Your task to perform on an android device: Open settings on Google Maps Image 0: 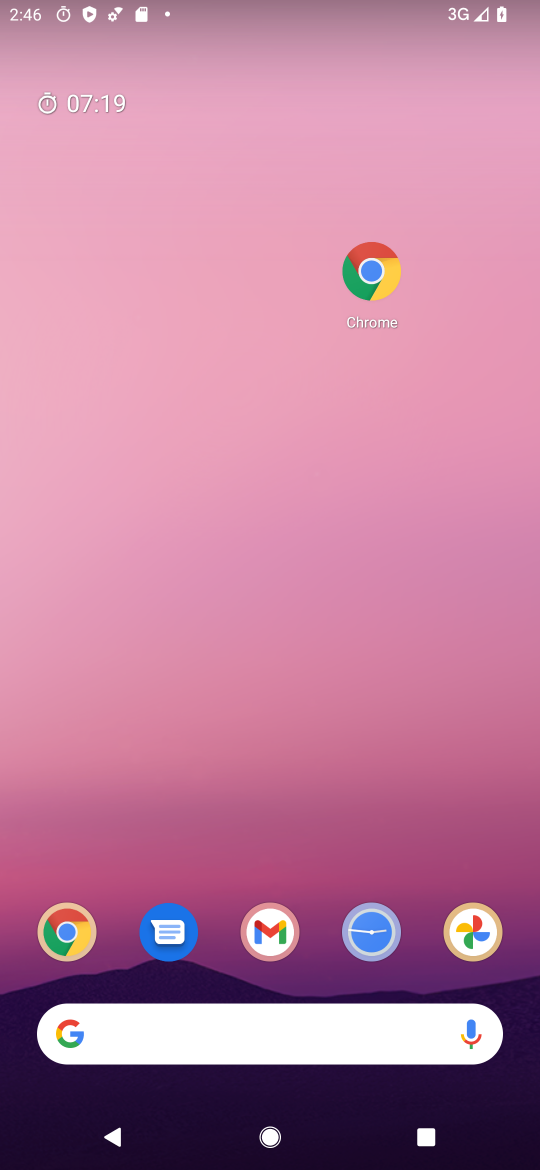
Step 0: drag from (328, 872) to (306, 69)
Your task to perform on an android device: Open settings on Google Maps Image 1: 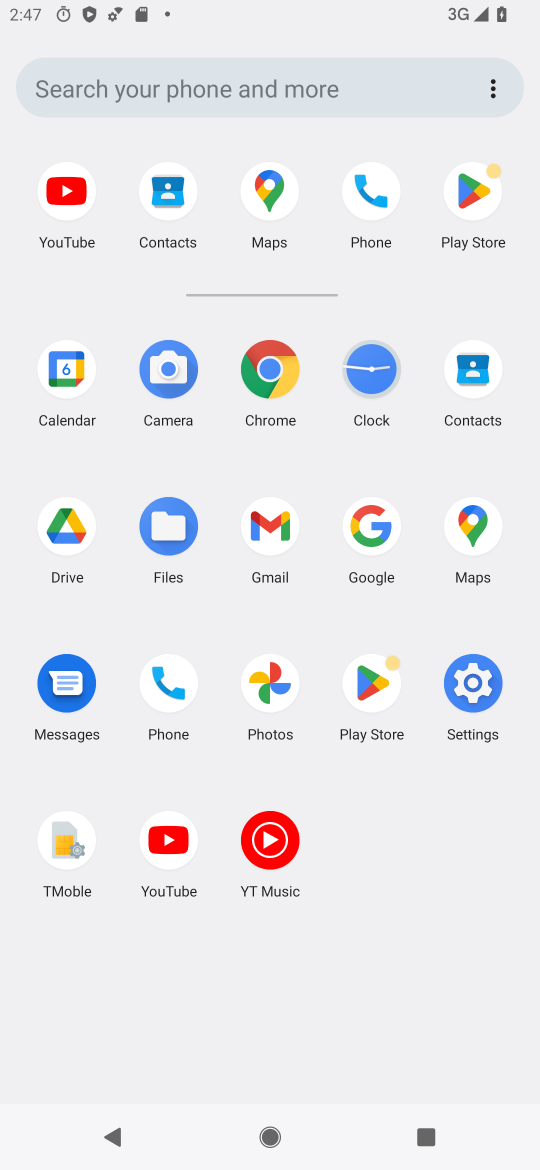
Step 1: click (465, 532)
Your task to perform on an android device: Open settings on Google Maps Image 2: 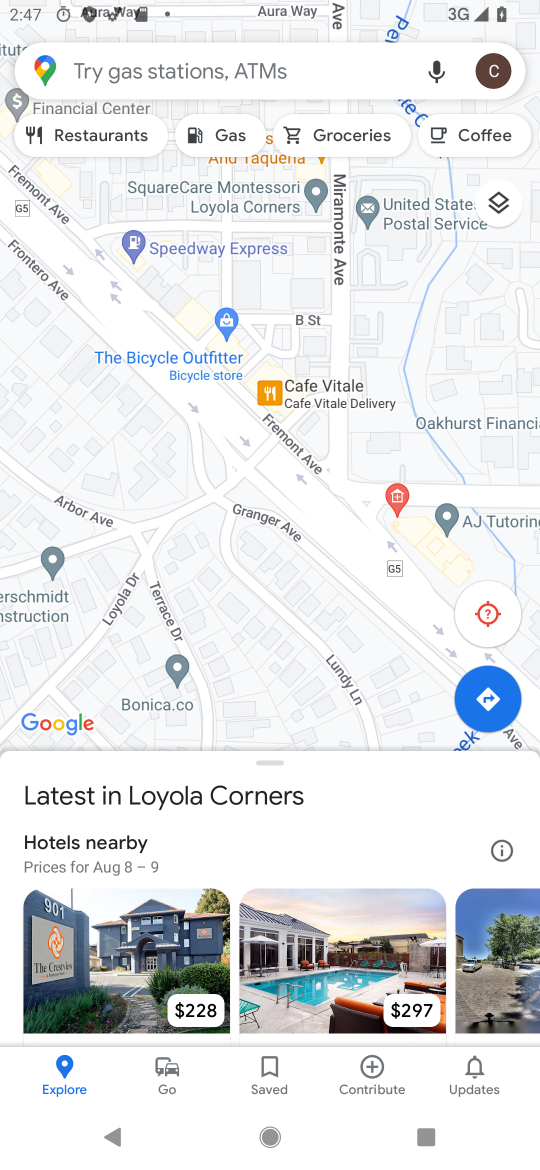
Step 2: click (53, 62)
Your task to perform on an android device: Open settings on Google Maps Image 3: 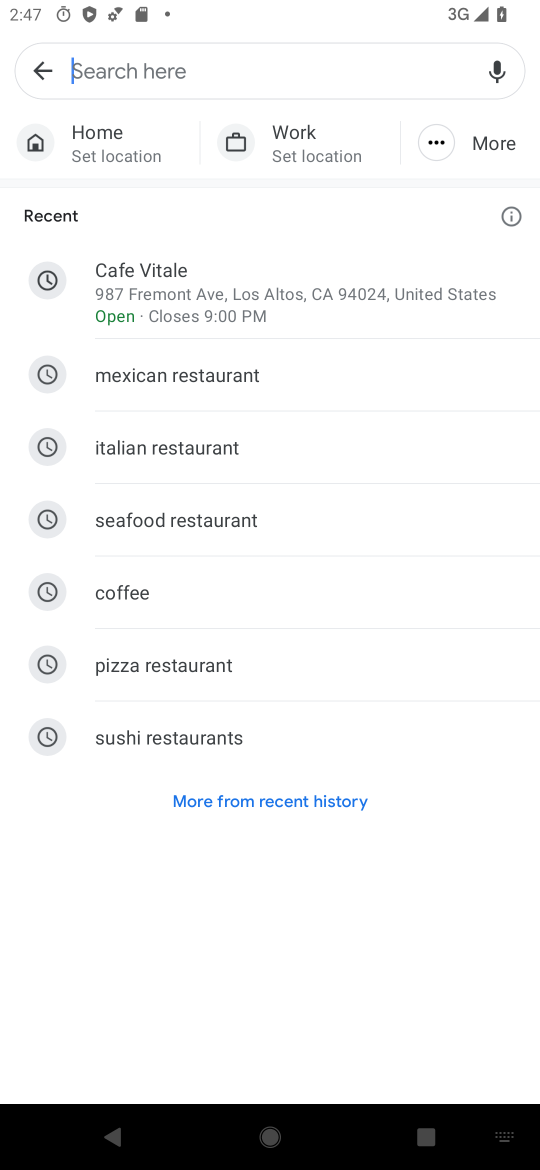
Step 3: press back button
Your task to perform on an android device: Open settings on Google Maps Image 4: 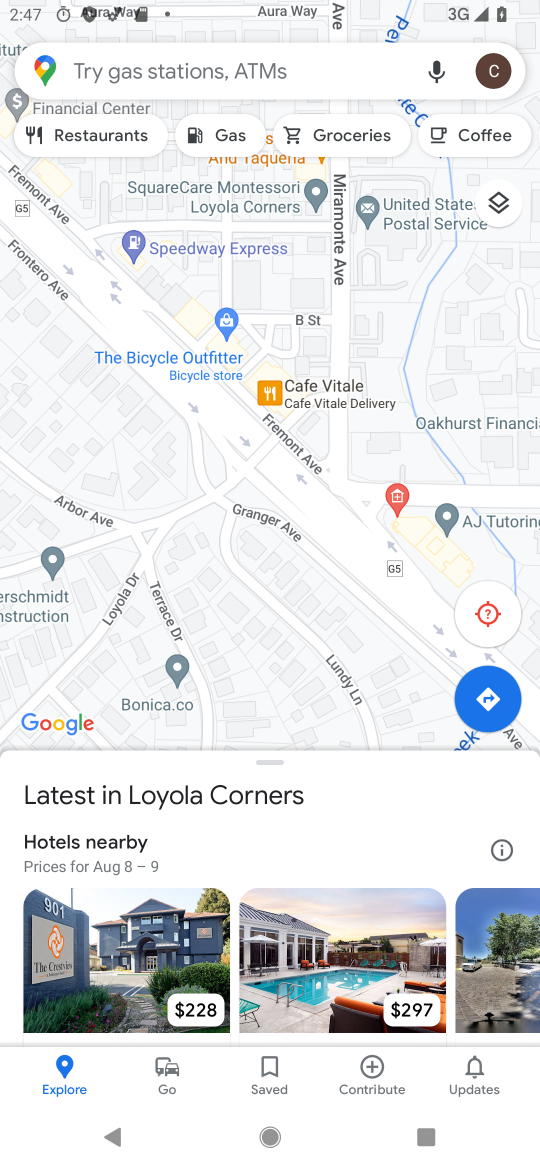
Step 4: click (489, 63)
Your task to perform on an android device: Open settings on Google Maps Image 5: 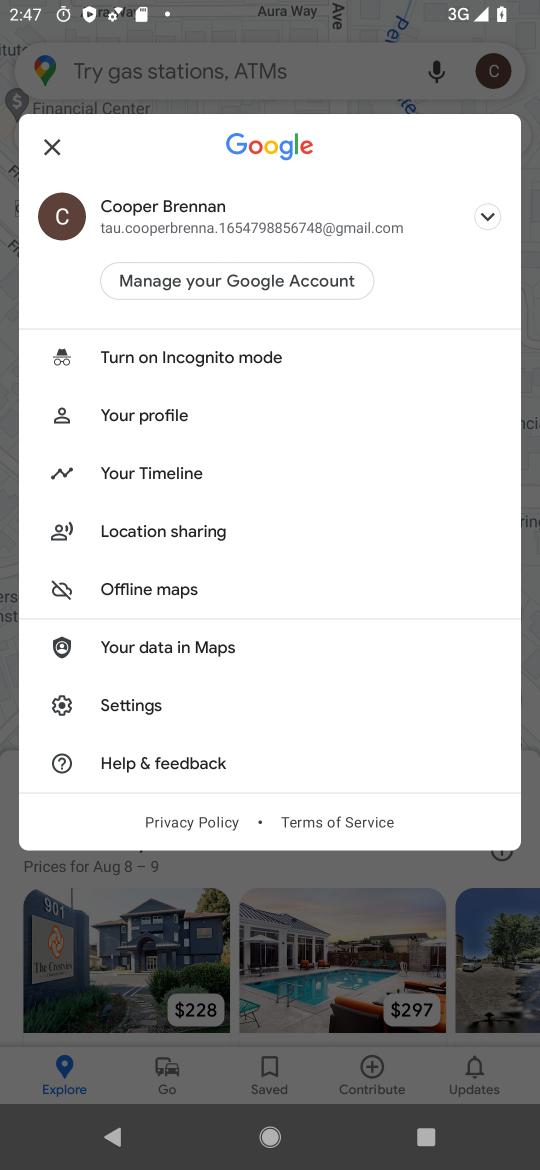
Step 5: click (103, 694)
Your task to perform on an android device: Open settings on Google Maps Image 6: 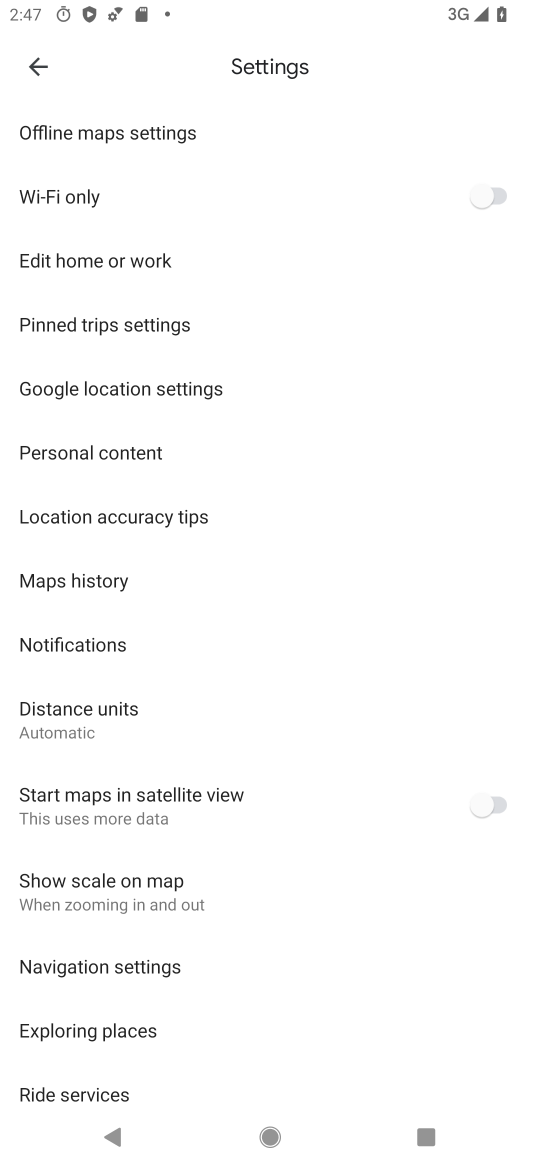
Step 6: task complete